Your task to perform on an android device: Open Youtube and go to the subscriptions tab Image 0: 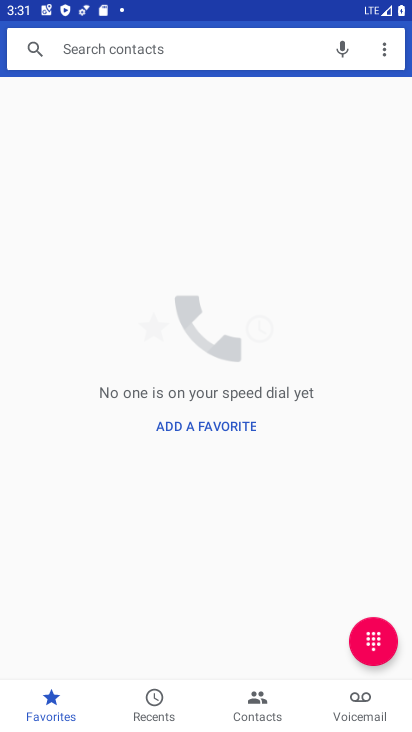
Step 0: press home button
Your task to perform on an android device: Open Youtube and go to the subscriptions tab Image 1: 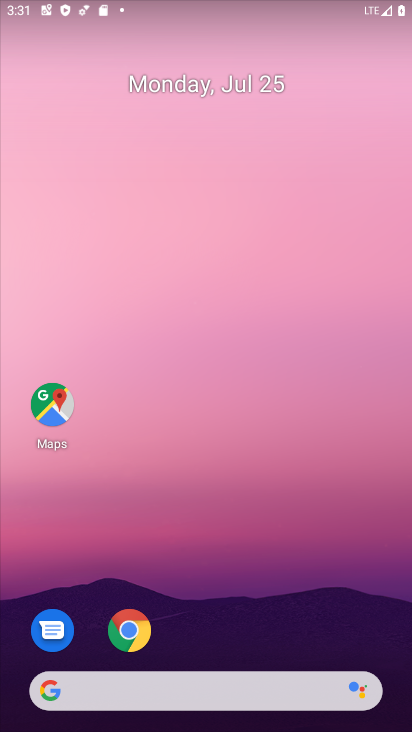
Step 1: drag from (222, 608) to (229, 32)
Your task to perform on an android device: Open Youtube and go to the subscriptions tab Image 2: 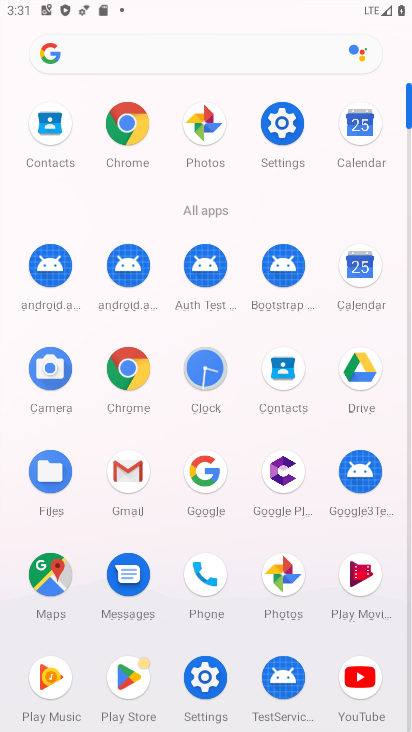
Step 2: click (364, 676)
Your task to perform on an android device: Open Youtube and go to the subscriptions tab Image 3: 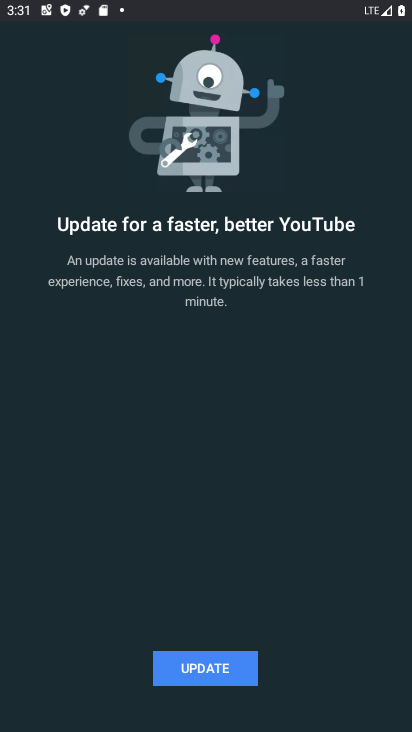
Step 3: click (199, 668)
Your task to perform on an android device: Open Youtube and go to the subscriptions tab Image 4: 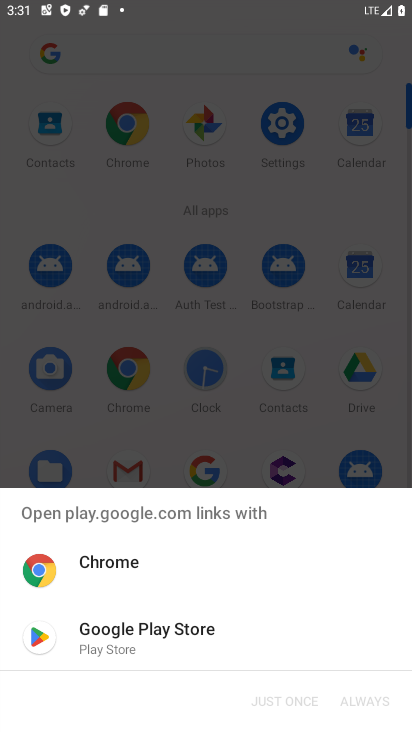
Step 4: click (123, 640)
Your task to perform on an android device: Open Youtube and go to the subscriptions tab Image 5: 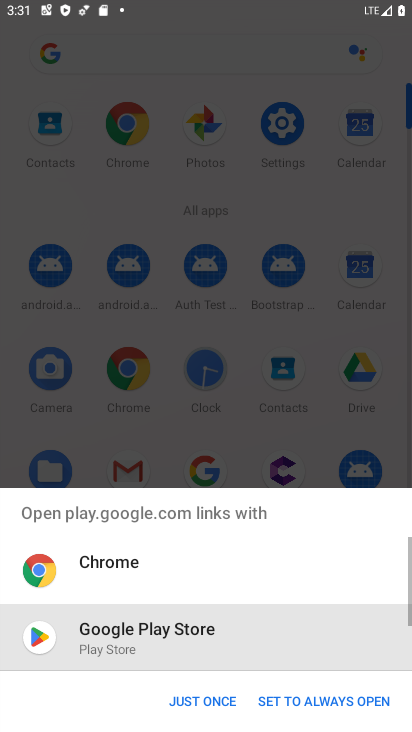
Step 5: click (204, 707)
Your task to perform on an android device: Open Youtube and go to the subscriptions tab Image 6: 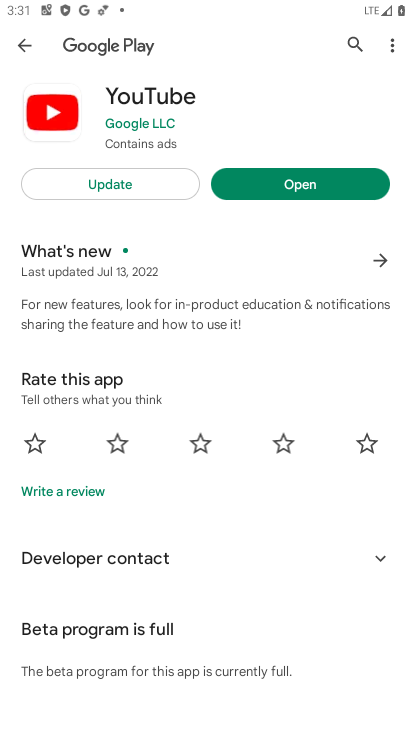
Step 6: click (128, 179)
Your task to perform on an android device: Open Youtube and go to the subscriptions tab Image 7: 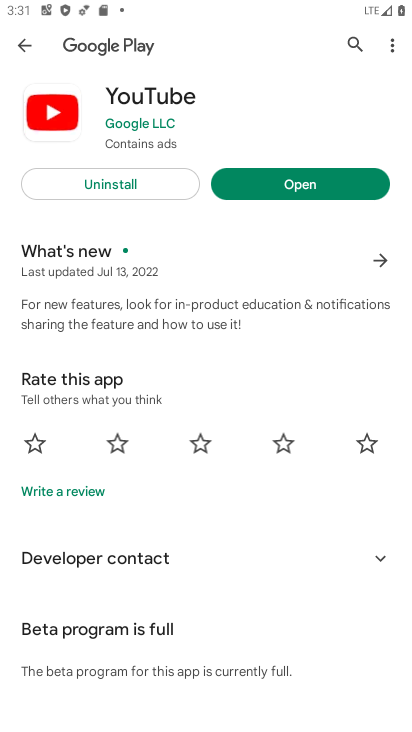
Step 7: click (332, 179)
Your task to perform on an android device: Open Youtube and go to the subscriptions tab Image 8: 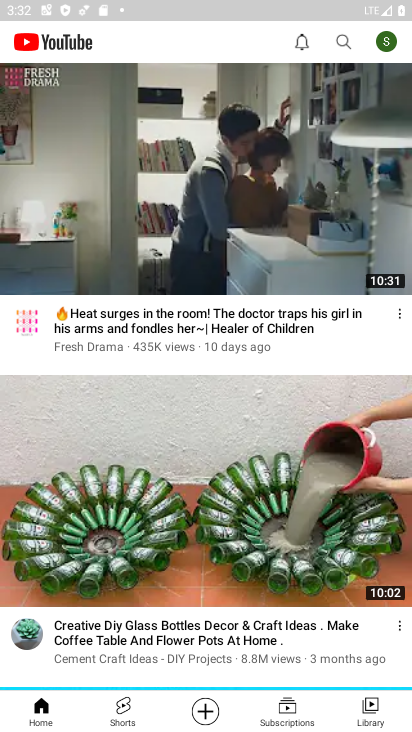
Step 8: click (280, 713)
Your task to perform on an android device: Open Youtube and go to the subscriptions tab Image 9: 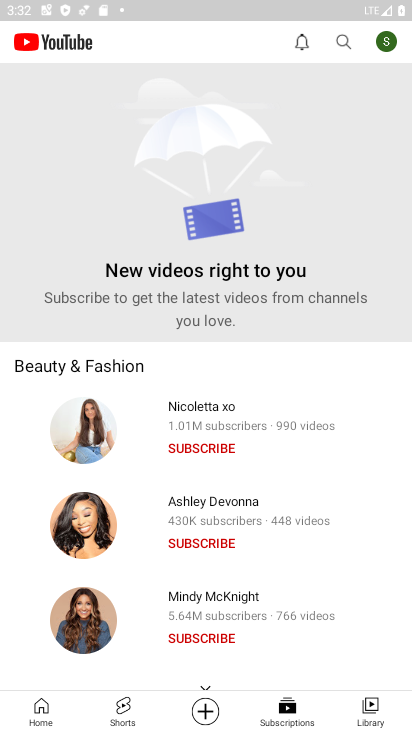
Step 9: task complete